Your task to perform on an android device: turn off smart reply in the gmail app Image 0: 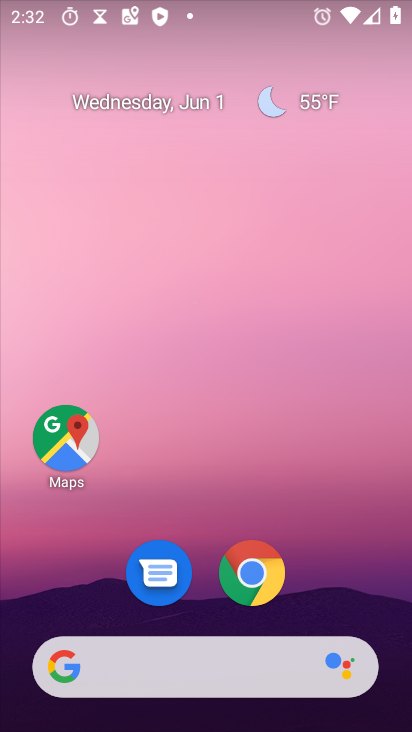
Step 0: drag from (346, 582) to (371, 104)
Your task to perform on an android device: turn off smart reply in the gmail app Image 1: 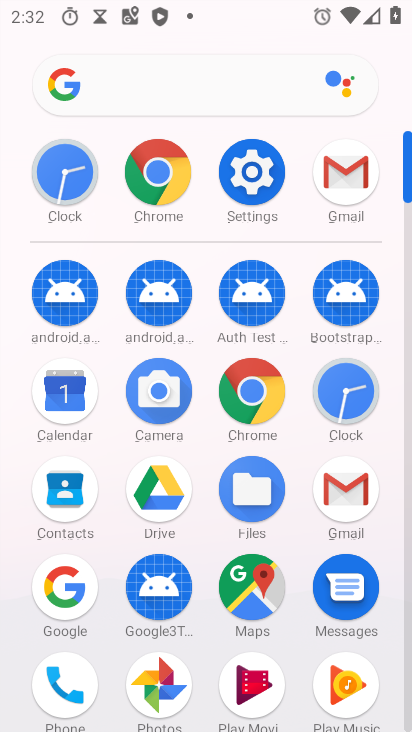
Step 1: click (344, 160)
Your task to perform on an android device: turn off smart reply in the gmail app Image 2: 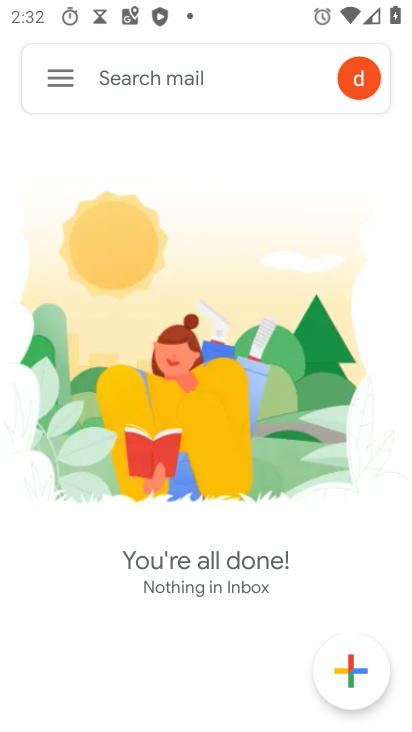
Step 2: click (54, 55)
Your task to perform on an android device: turn off smart reply in the gmail app Image 3: 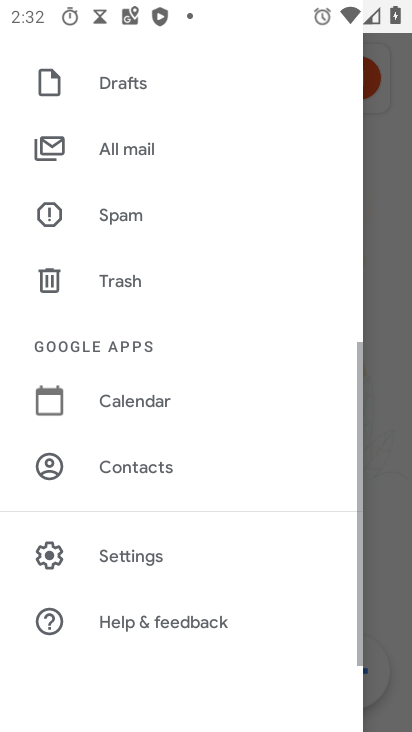
Step 3: click (121, 546)
Your task to perform on an android device: turn off smart reply in the gmail app Image 4: 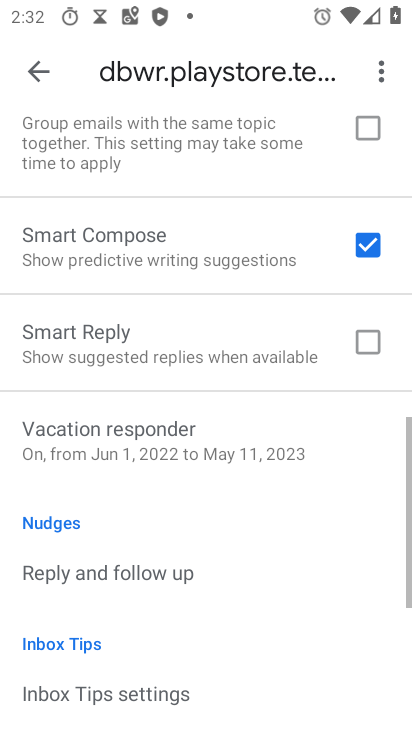
Step 4: task complete